Your task to perform on an android device: turn on location history Image 0: 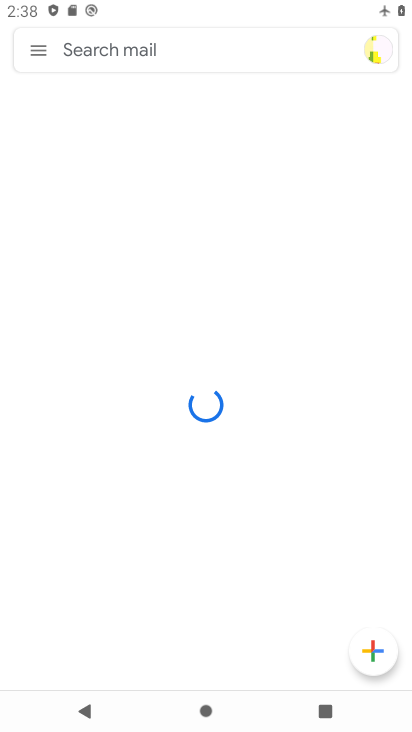
Step 0: press home button
Your task to perform on an android device: turn on location history Image 1: 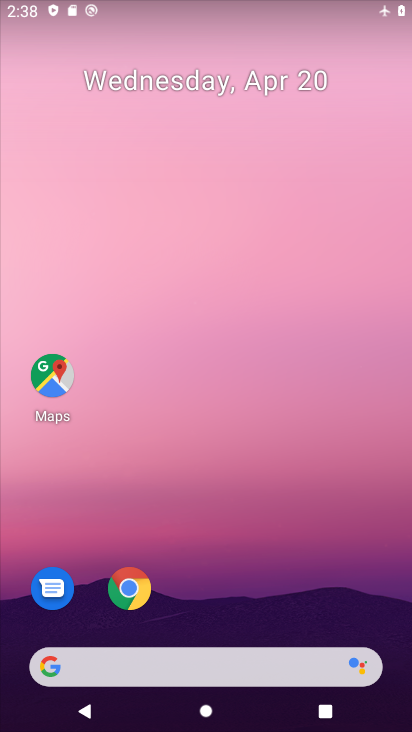
Step 1: drag from (217, 601) to (210, 87)
Your task to perform on an android device: turn on location history Image 2: 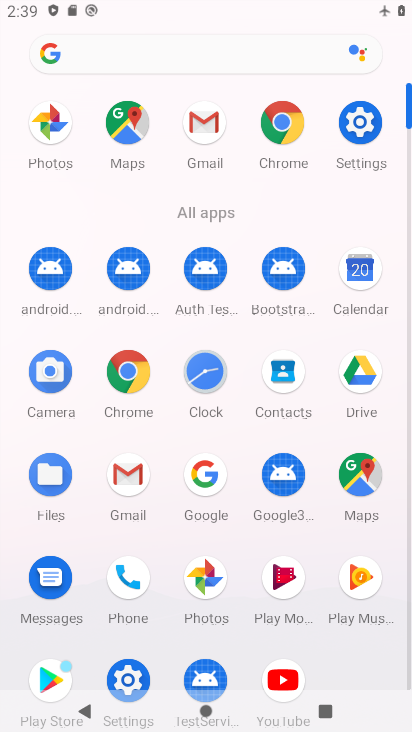
Step 2: click (356, 123)
Your task to perform on an android device: turn on location history Image 3: 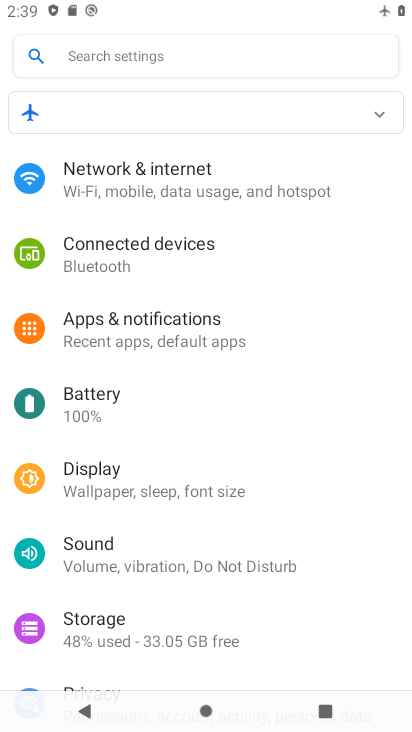
Step 3: drag from (193, 593) to (178, 156)
Your task to perform on an android device: turn on location history Image 4: 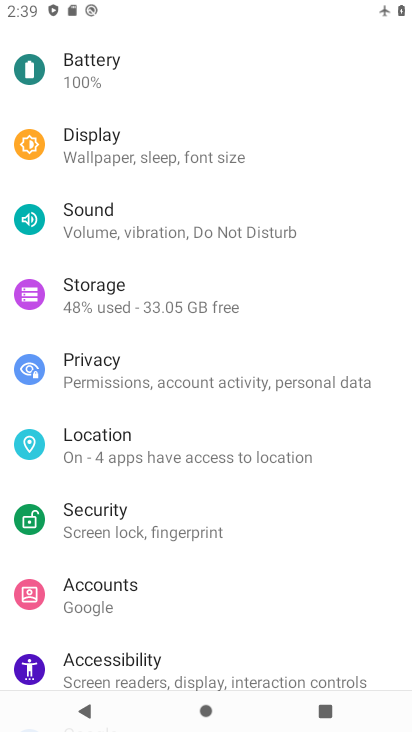
Step 4: click (154, 443)
Your task to perform on an android device: turn on location history Image 5: 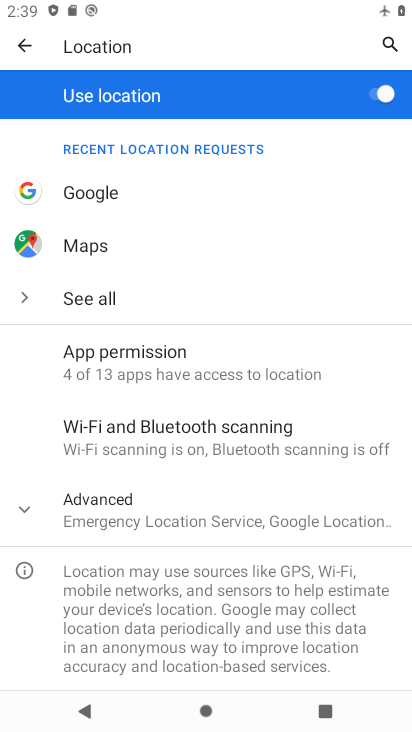
Step 5: drag from (246, 593) to (253, 231)
Your task to perform on an android device: turn on location history Image 6: 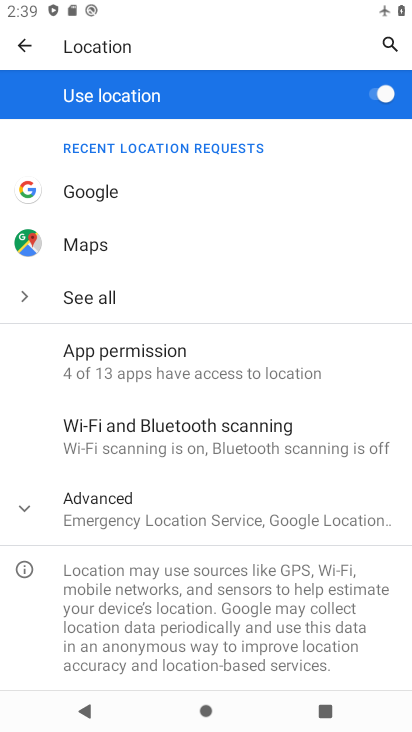
Step 6: click (245, 495)
Your task to perform on an android device: turn on location history Image 7: 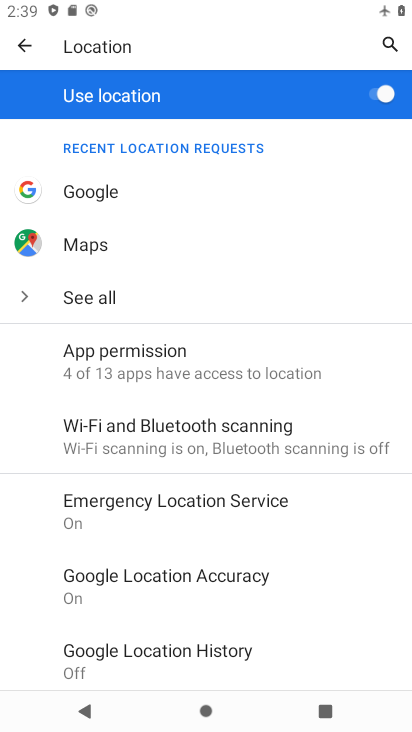
Step 7: click (239, 649)
Your task to perform on an android device: turn on location history Image 8: 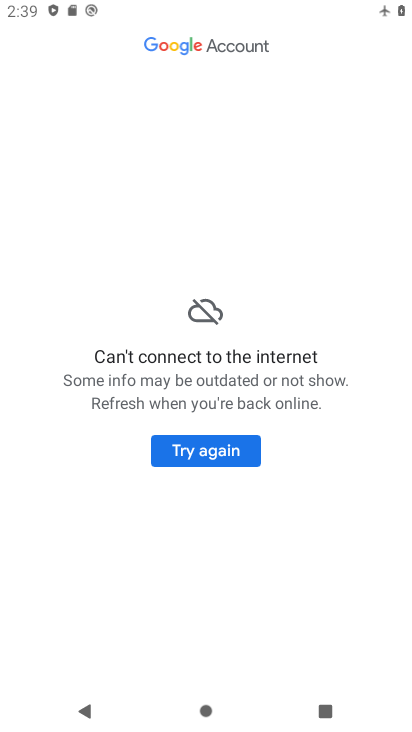
Step 8: task complete